Your task to perform on an android device: star an email in the gmail app Image 0: 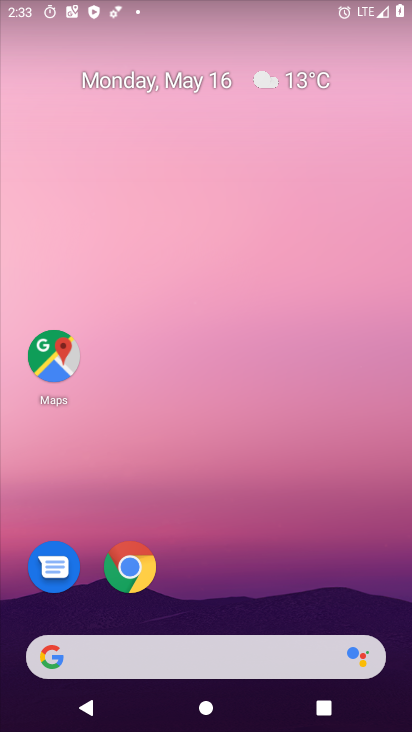
Step 0: drag from (225, 572) to (252, 119)
Your task to perform on an android device: star an email in the gmail app Image 1: 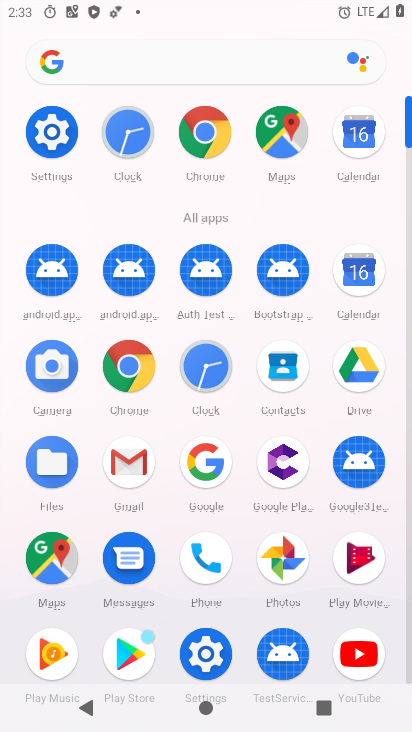
Step 1: click (124, 447)
Your task to perform on an android device: star an email in the gmail app Image 2: 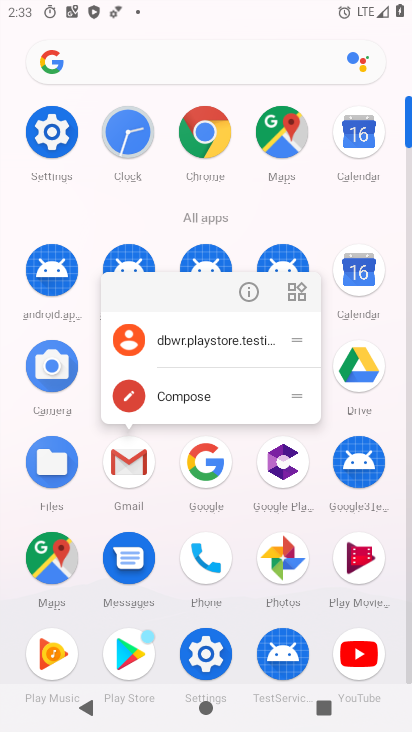
Step 2: click (132, 448)
Your task to perform on an android device: star an email in the gmail app Image 3: 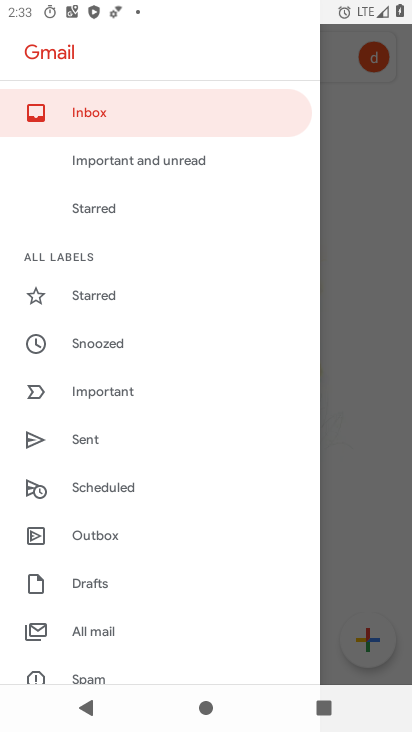
Step 3: click (128, 103)
Your task to perform on an android device: star an email in the gmail app Image 4: 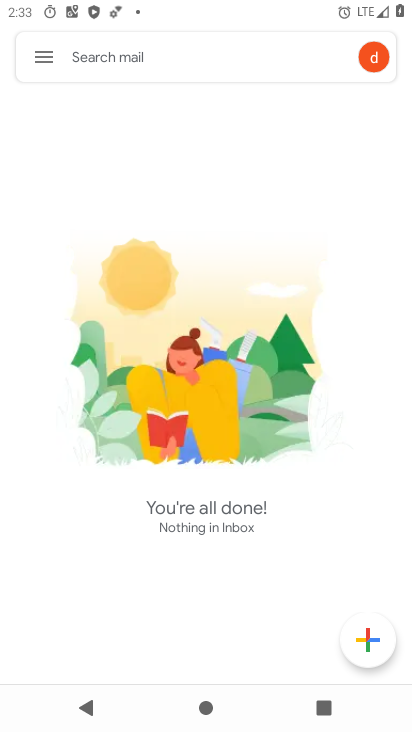
Step 4: task complete